Your task to perform on an android device: Open my contact list Image 0: 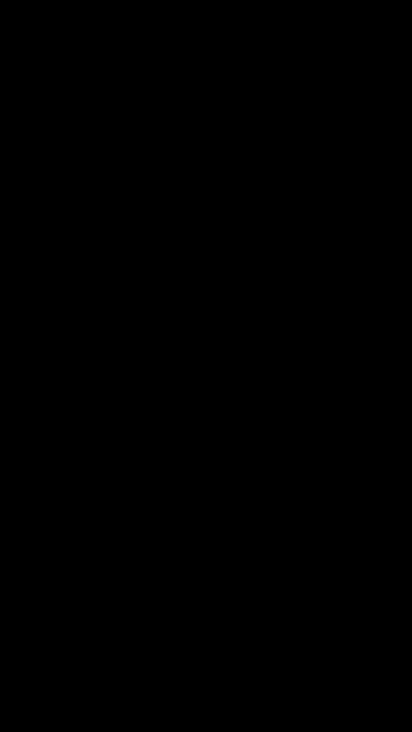
Step 0: press home button
Your task to perform on an android device: Open my contact list Image 1: 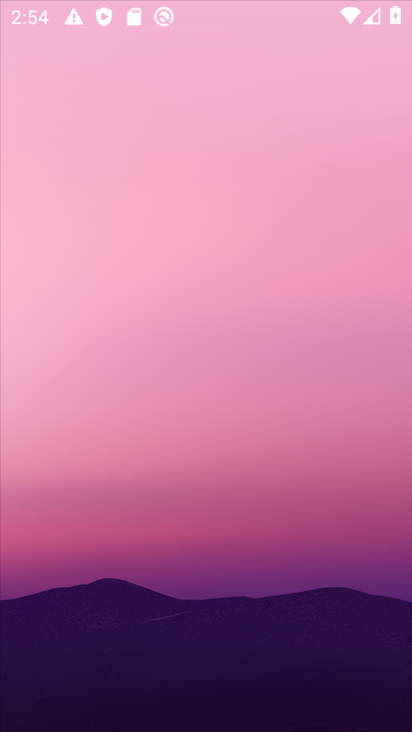
Step 1: drag from (202, 692) to (243, 325)
Your task to perform on an android device: Open my contact list Image 2: 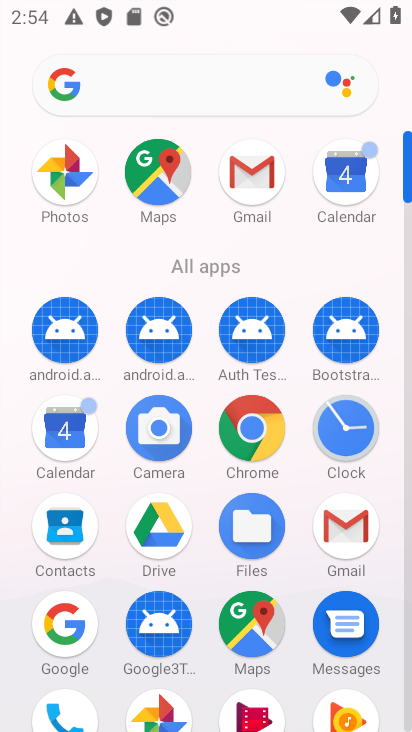
Step 2: drag from (250, 610) to (362, 181)
Your task to perform on an android device: Open my contact list Image 3: 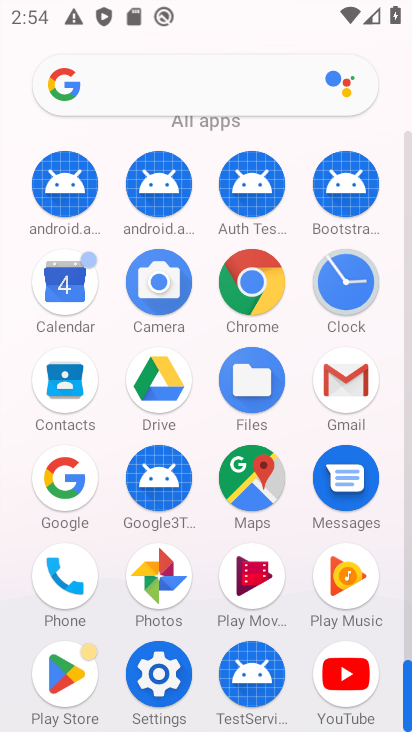
Step 3: click (47, 373)
Your task to perform on an android device: Open my contact list Image 4: 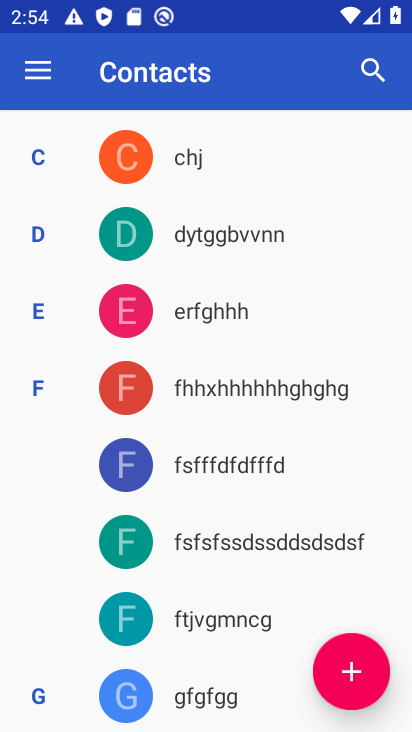
Step 4: task complete